Your task to perform on an android device: Open the calendar and show me this week's events? Image 0: 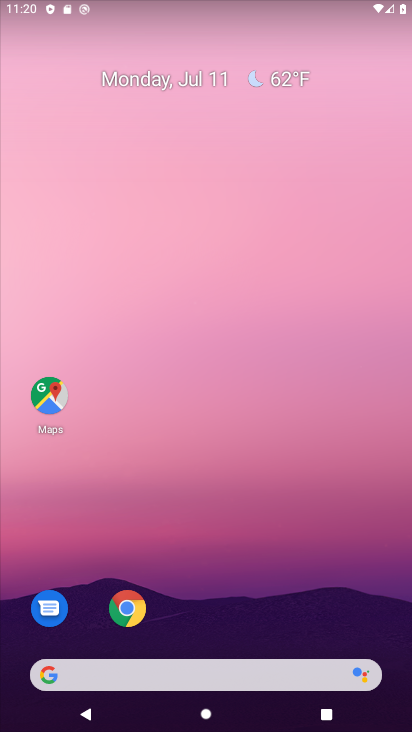
Step 0: drag from (204, 644) to (123, 87)
Your task to perform on an android device: Open the calendar and show me this week's events? Image 1: 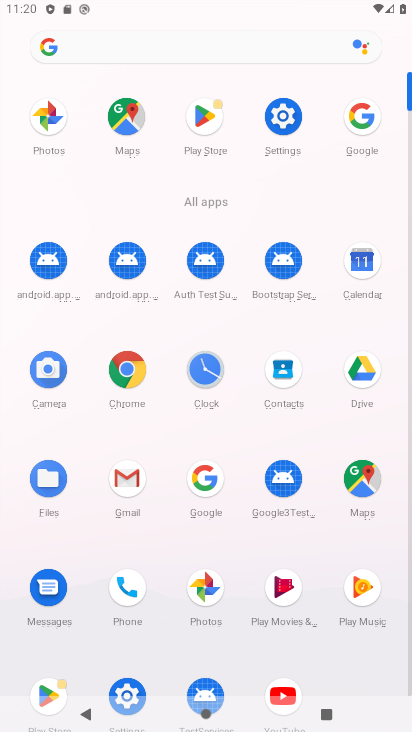
Step 1: click (360, 265)
Your task to perform on an android device: Open the calendar and show me this week's events? Image 2: 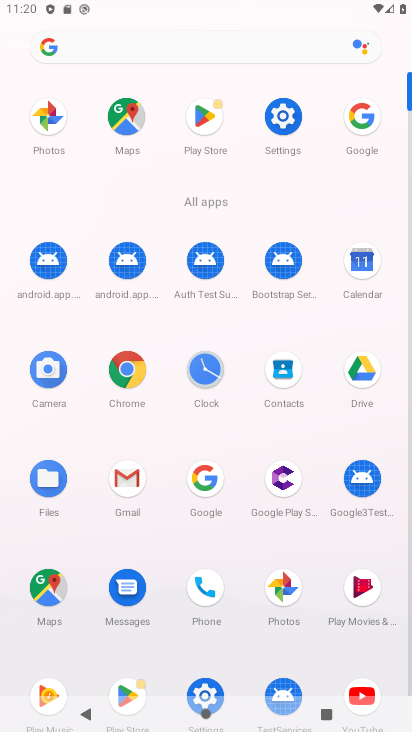
Step 2: click (369, 263)
Your task to perform on an android device: Open the calendar and show me this week's events? Image 3: 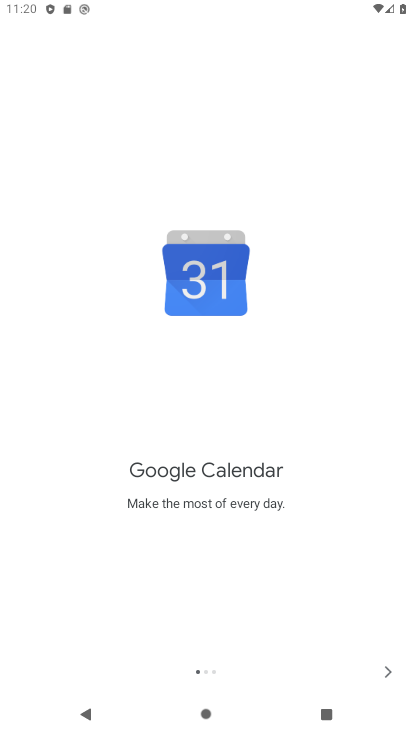
Step 3: click (375, 672)
Your task to perform on an android device: Open the calendar and show me this week's events? Image 4: 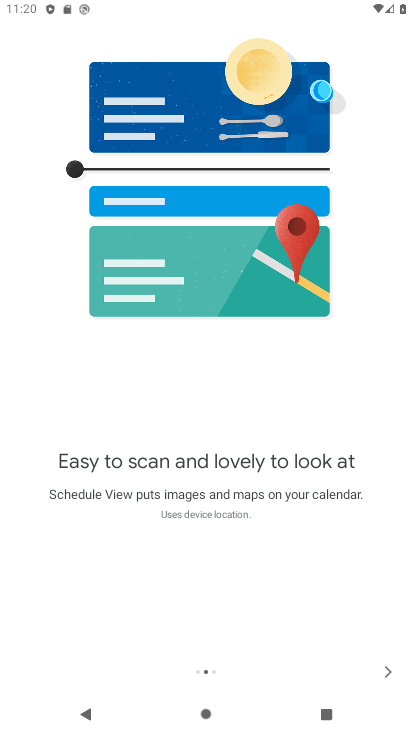
Step 4: click (380, 670)
Your task to perform on an android device: Open the calendar and show me this week's events? Image 5: 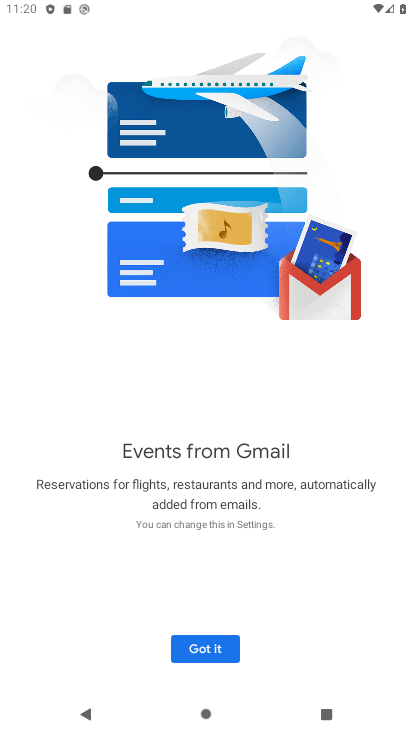
Step 5: click (207, 642)
Your task to perform on an android device: Open the calendar and show me this week's events? Image 6: 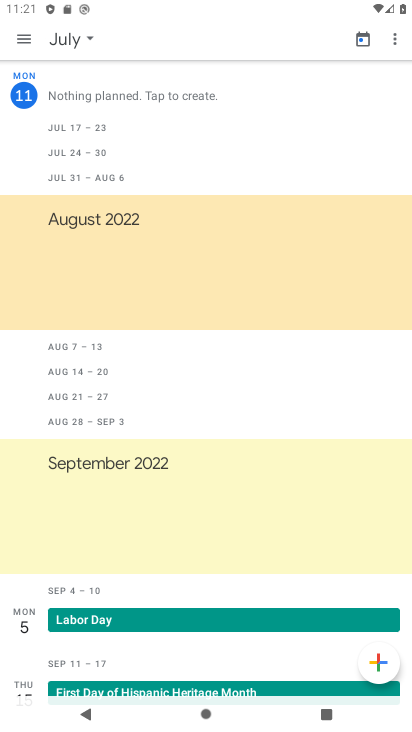
Step 6: drag from (163, 156) to (146, 391)
Your task to perform on an android device: Open the calendar and show me this week's events? Image 7: 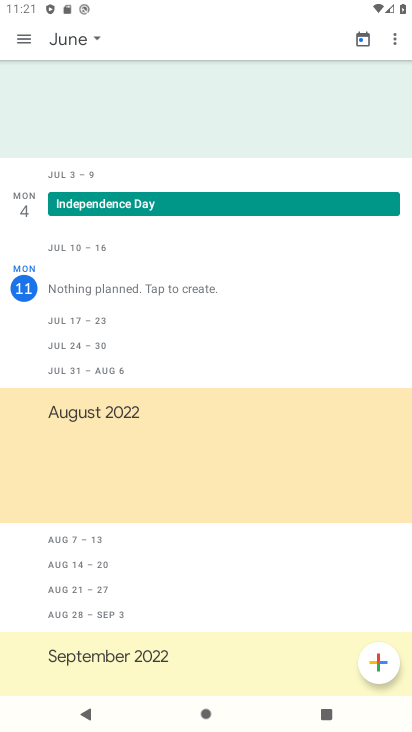
Step 7: click (12, 39)
Your task to perform on an android device: Open the calendar and show me this week's events? Image 8: 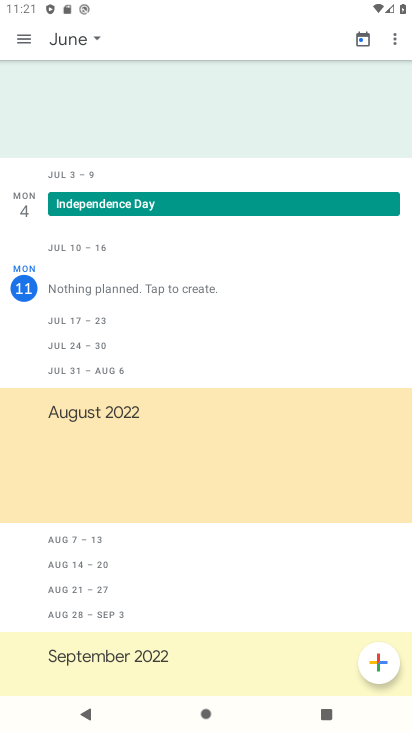
Step 8: click (32, 38)
Your task to perform on an android device: Open the calendar and show me this week's events? Image 9: 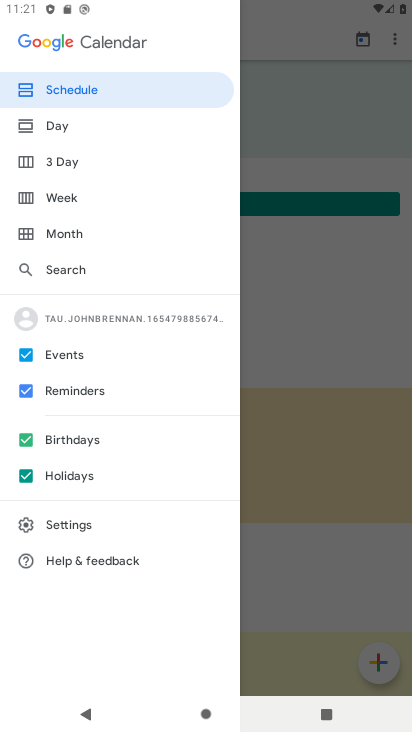
Step 9: click (73, 200)
Your task to perform on an android device: Open the calendar and show me this week's events? Image 10: 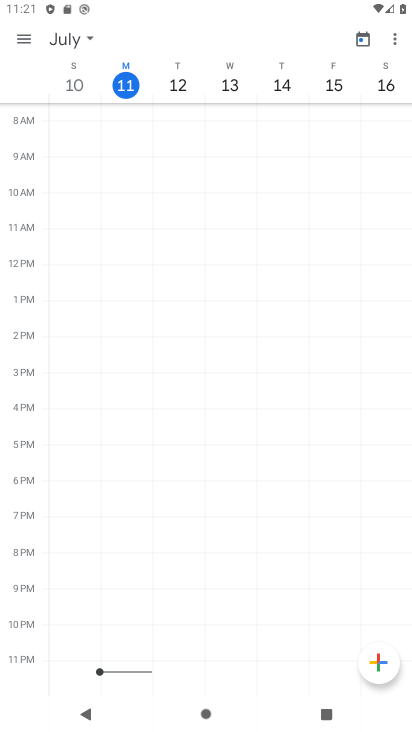
Step 10: task complete